Your task to perform on an android device: turn off notifications settings in the gmail app Image 0: 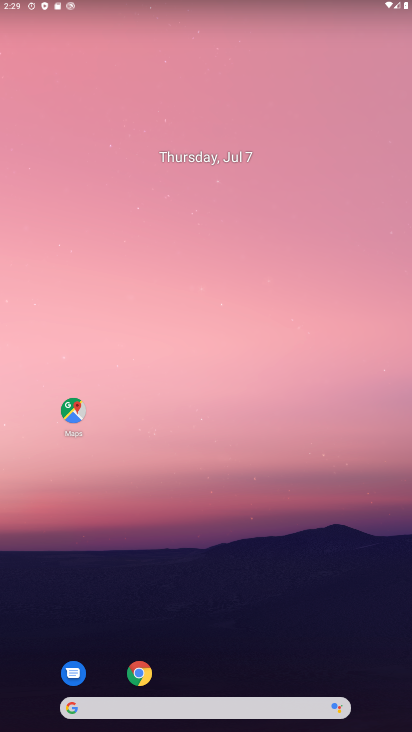
Step 0: drag from (231, 671) to (147, 0)
Your task to perform on an android device: turn off notifications settings in the gmail app Image 1: 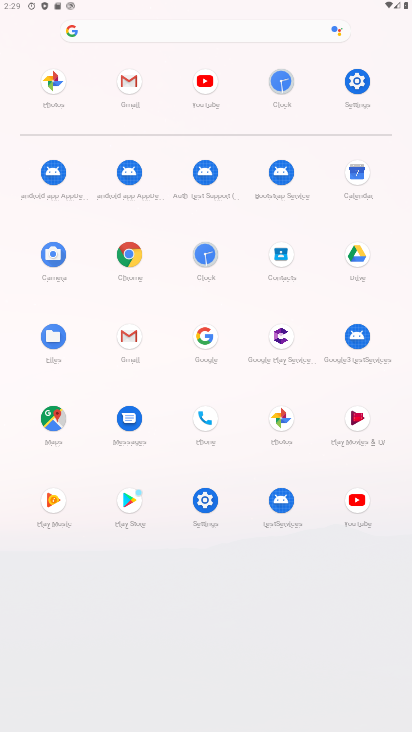
Step 1: click (126, 343)
Your task to perform on an android device: turn off notifications settings in the gmail app Image 2: 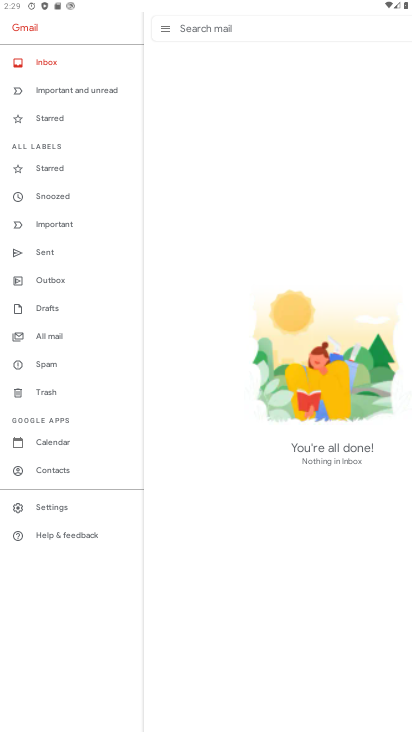
Step 2: click (46, 505)
Your task to perform on an android device: turn off notifications settings in the gmail app Image 3: 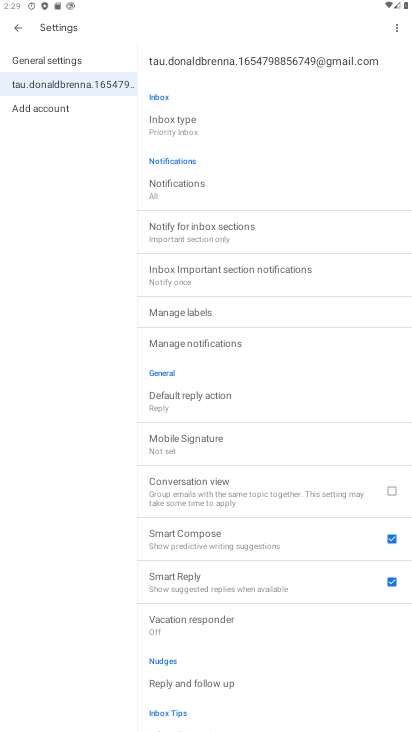
Step 3: click (164, 184)
Your task to perform on an android device: turn off notifications settings in the gmail app Image 4: 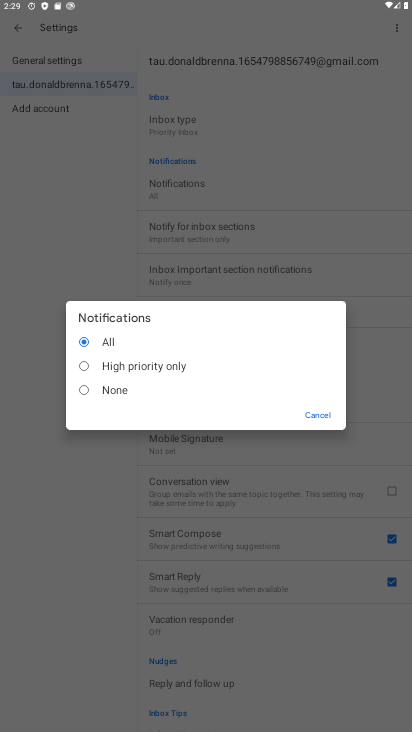
Step 4: click (123, 383)
Your task to perform on an android device: turn off notifications settings in the gmail app Image 5: 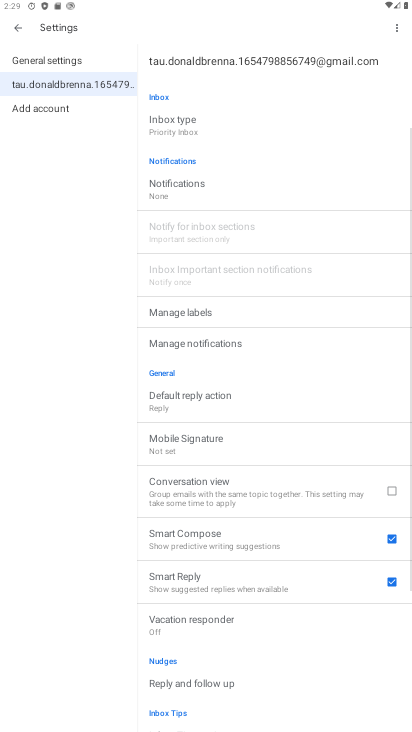
Step 5: task complete